Your task to perform on an android device: Go to sound settings Image 0: 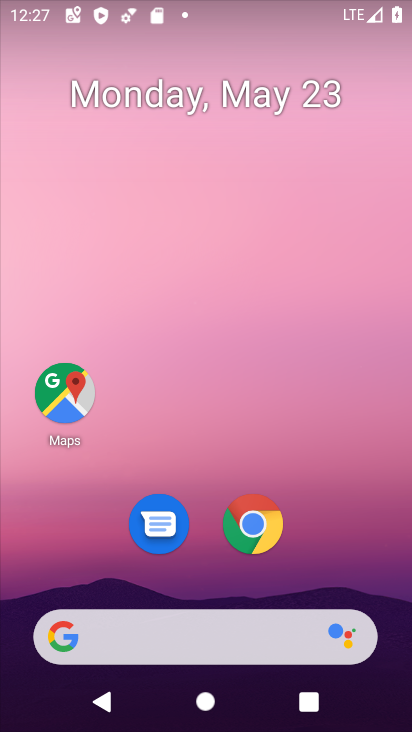
Step 0: drag from (326, 539) to (304, 33)
Your task to perform on an android device: Go to sound settings Image 1: 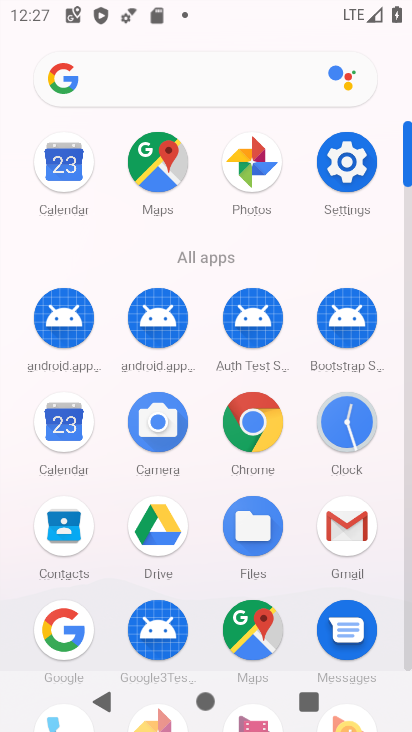
Step 1: click (345, 160)
Your task to perform on an android device: Go to sound settings Image 2: 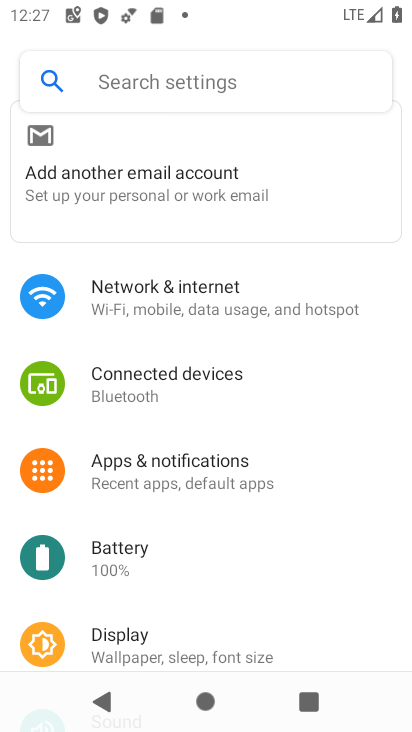
Step 2: drag from (200, 535) to (279, 137)
Your task to perform on an android device: Go to sound settings Image 3: 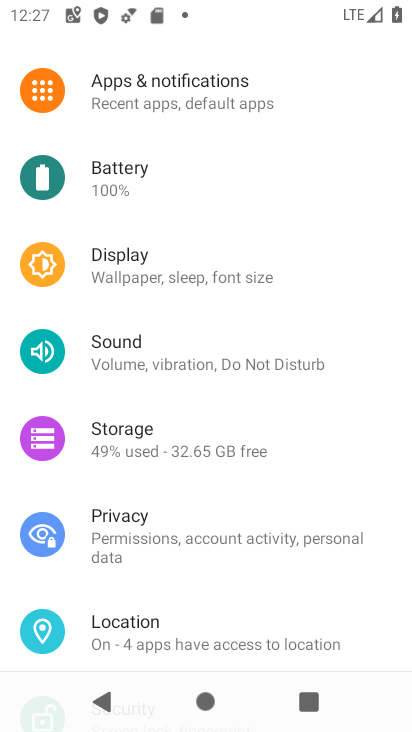
Step 3: click (209, 353)
Your task to perform on an android device: Go to sound settings Image 4: 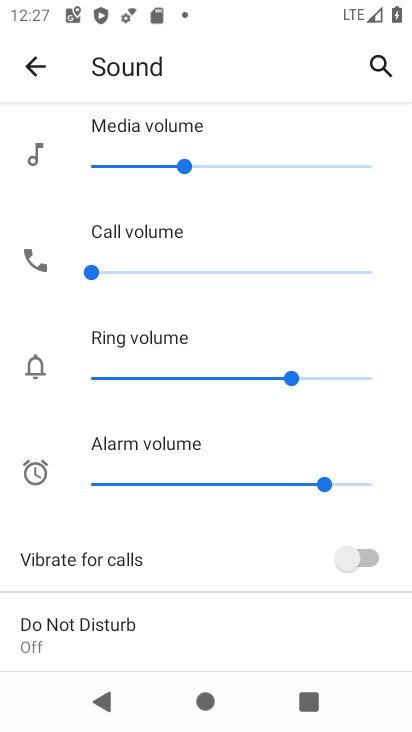
Step 4: task complete